Your task to perform on an android device: change the clock display to show seconds Image 0: 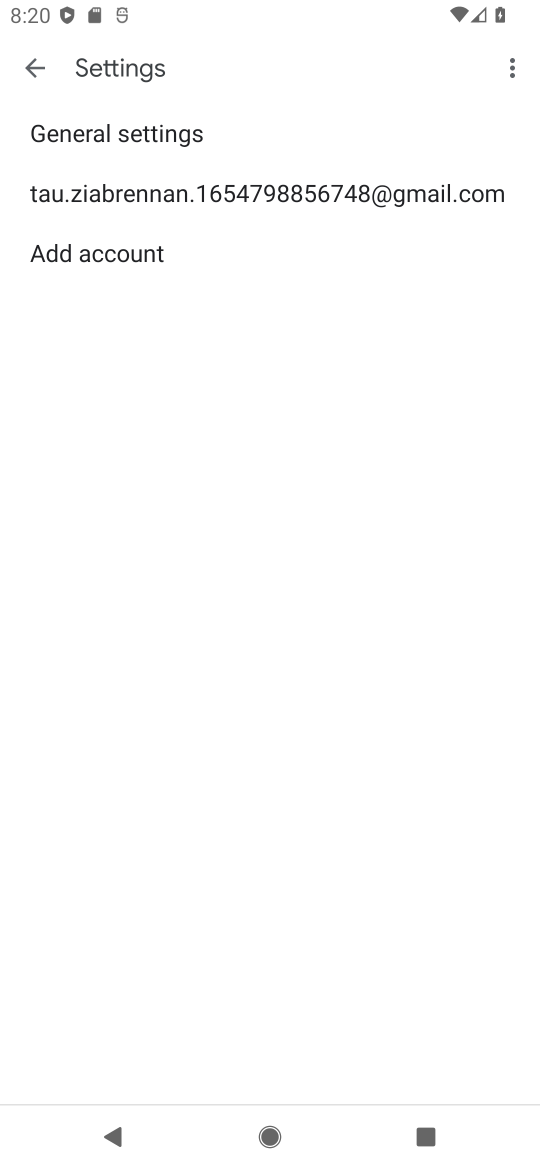
Step 0: press home button
Your task to perform on an android device: change the clock display to show seconds Image 1: 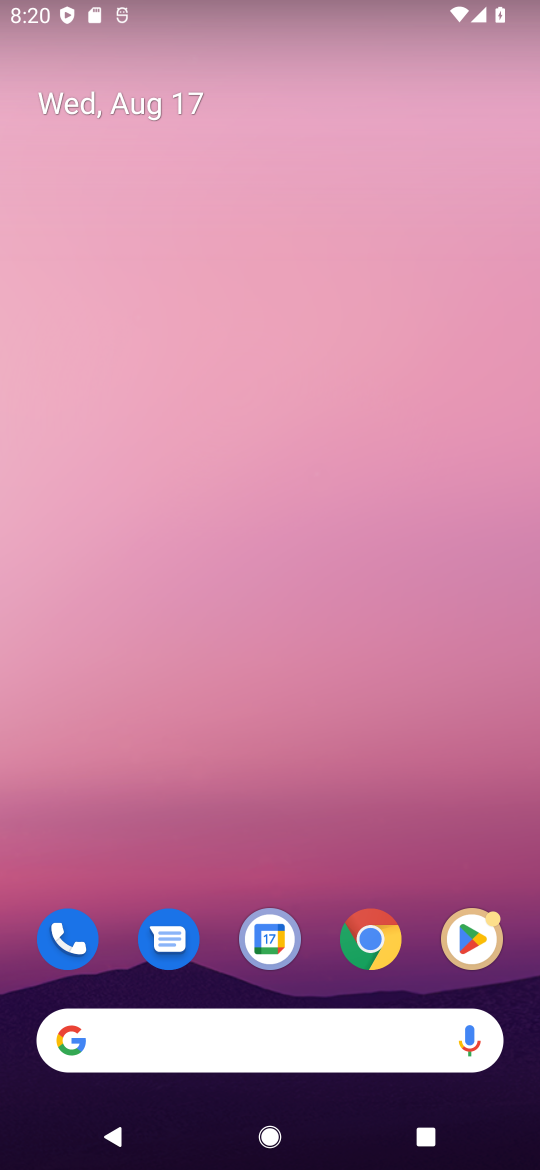
Step 1: drag from (374, 863) to (220, 88)
Your task to perform on an android device: change the clock display to show seconds Image 2: 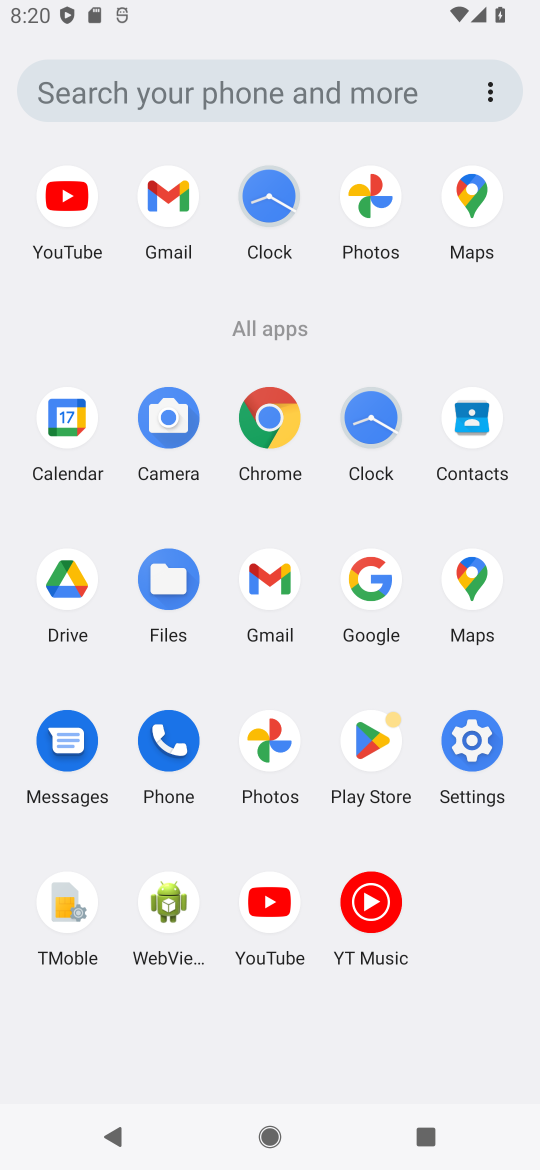
Step 2: click (380, 414)
Your task to perform on an android device: change the clock display to show seconds Image 3: 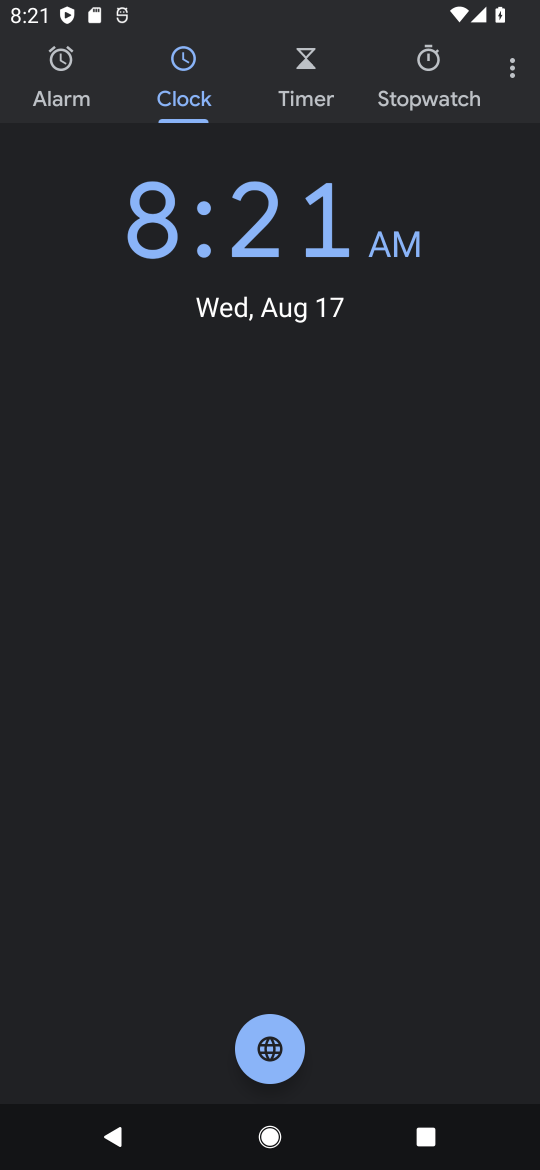
Step 3: click (499, 59)
Your task to perform on an android device: change the clock display to show seconds Image 4: 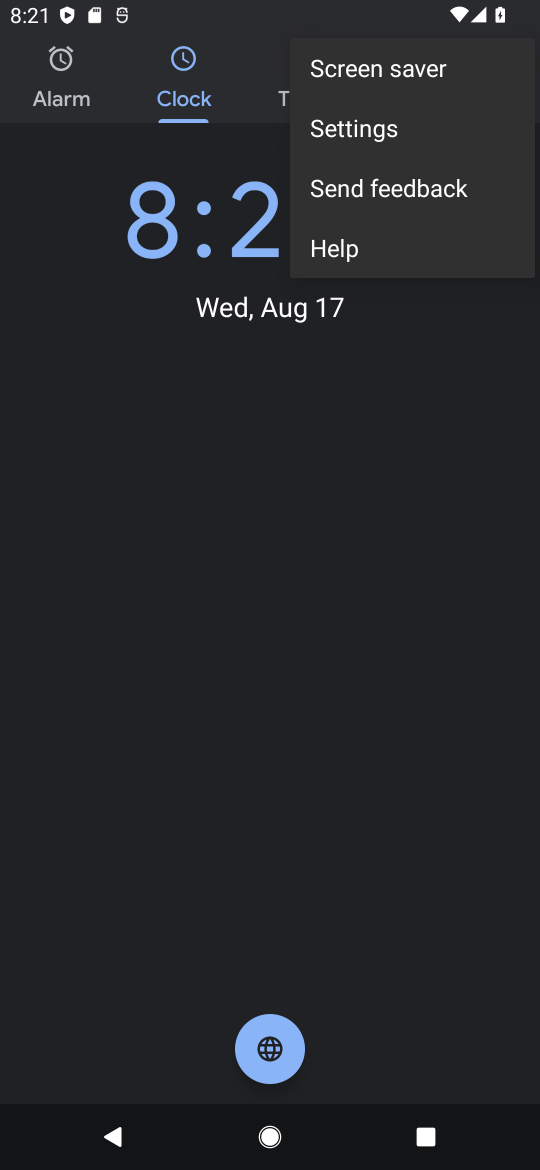
Step 4: click (347, 120)
Your task to perform on an android device: change the clock display to show seconds Image 5: 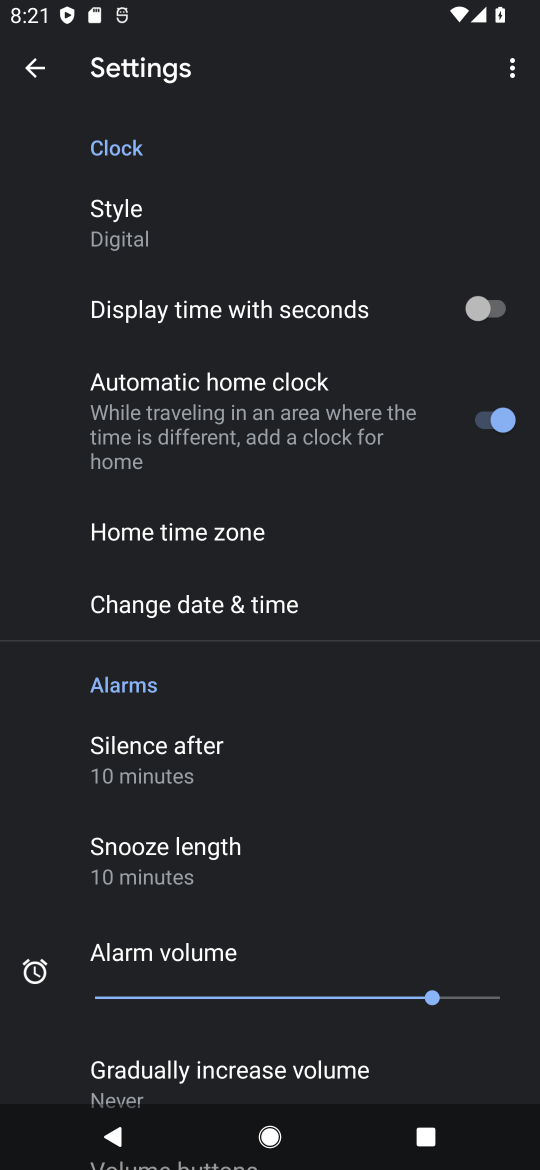
Step 5: click (134, 253)
Your task to perform on an android device: change the clock display to show seconds Image 6: 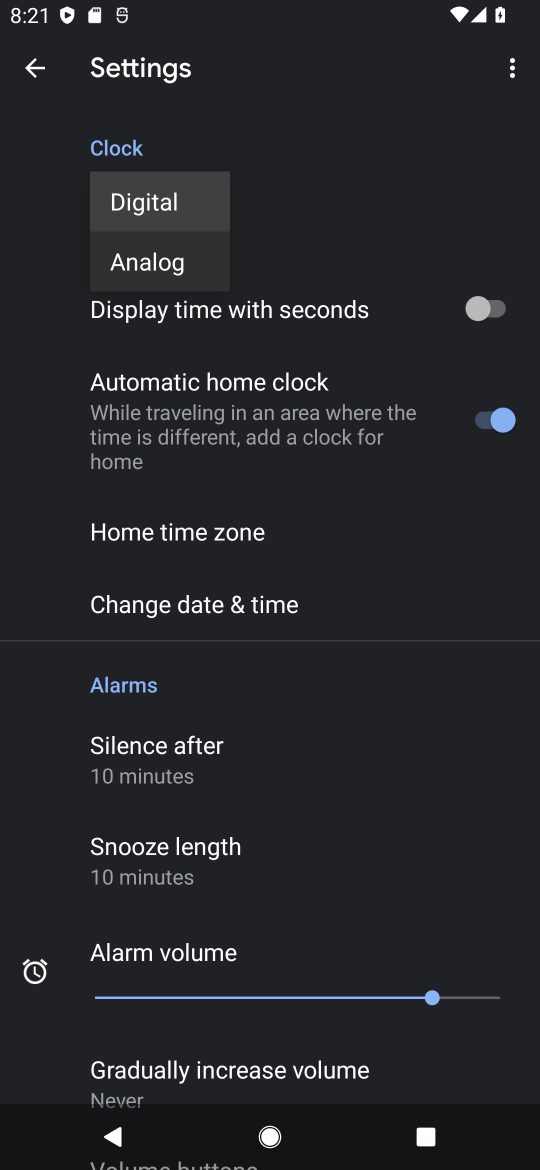
Step 6: click (416, 309)
Your task to perform on an android device: change the clock display to show seconds Image 7: 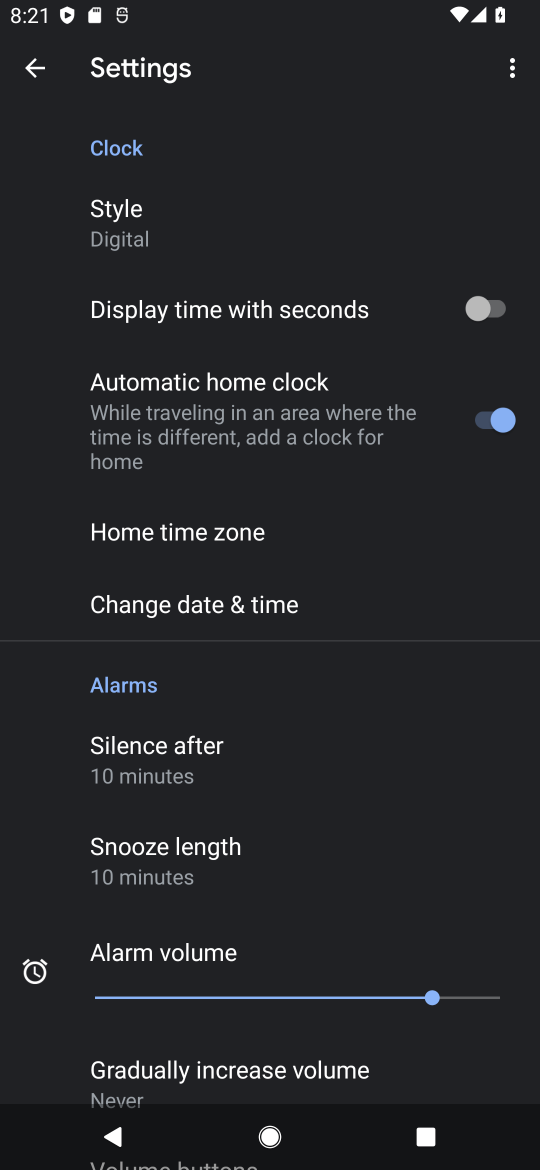
Step 7: click (496, 303)
Your task to perform on an android device: change the clock display to show seconds Image 8: 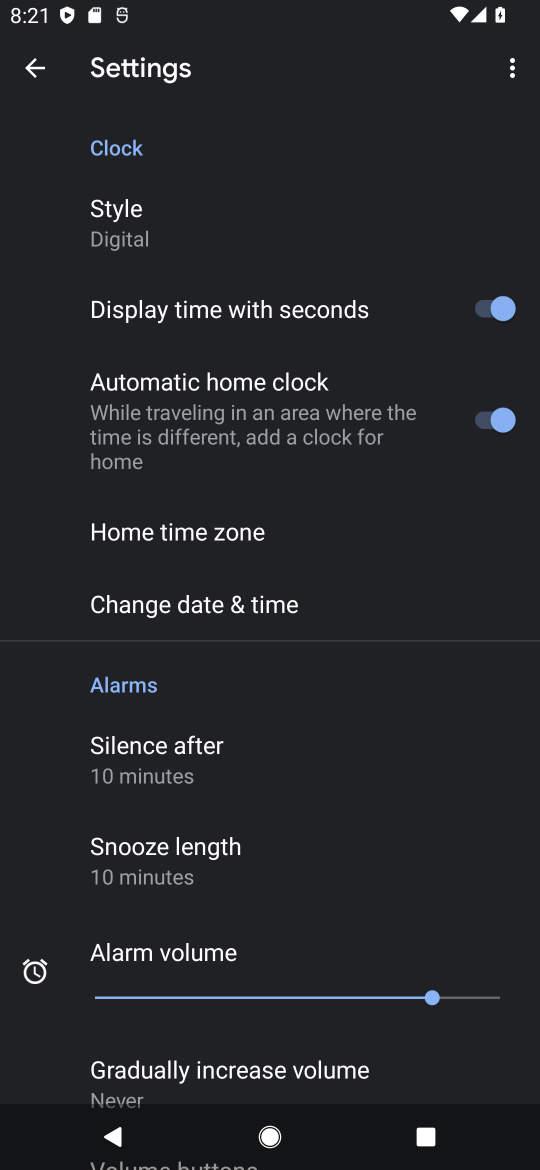
Step 8: task complete